Your task to perform on an android device: empty trash in google photos Image 0: 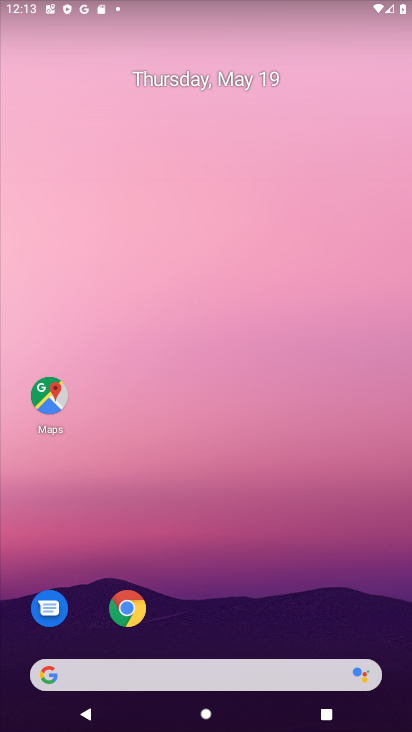
Step 0: drag from (246, 549) to (256, 309)
Your task to perform on an android device: empty trash in google photos Image 1: 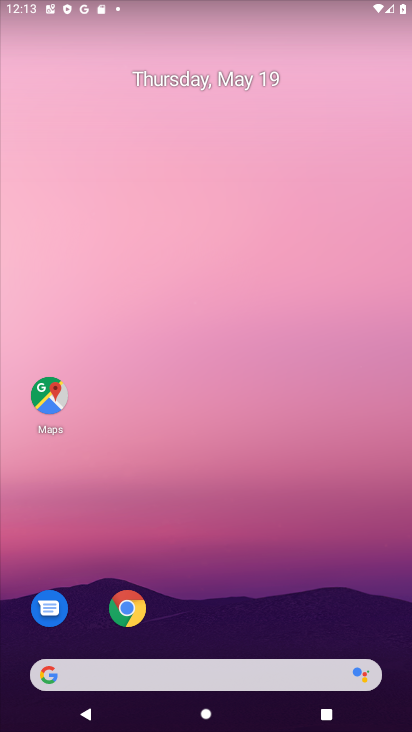
Step 1: drag from (245, 635) to (287, 211)
Your task to perform on an android device: empty trash in google photos Image 2: 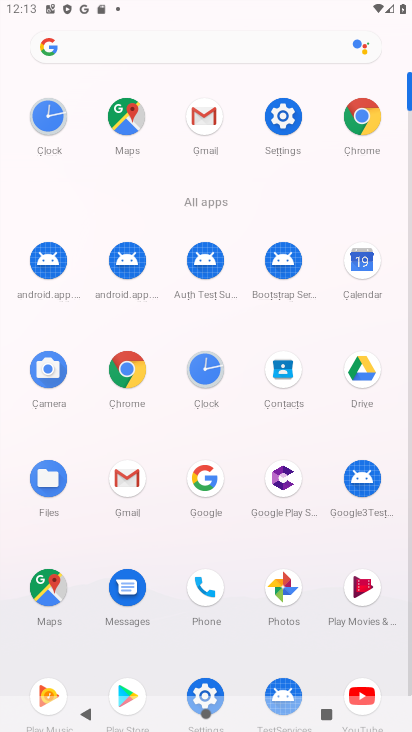
Step 2: click (274, 584)
Your task to perform on an android device: empty trash in google photos Image 3: 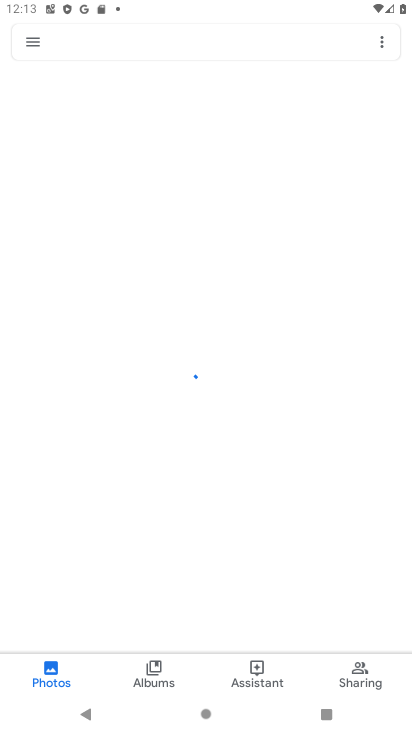
Step 3: click (27, 46)
Your task to perform on an android device: empty trash in google photos Image 4: 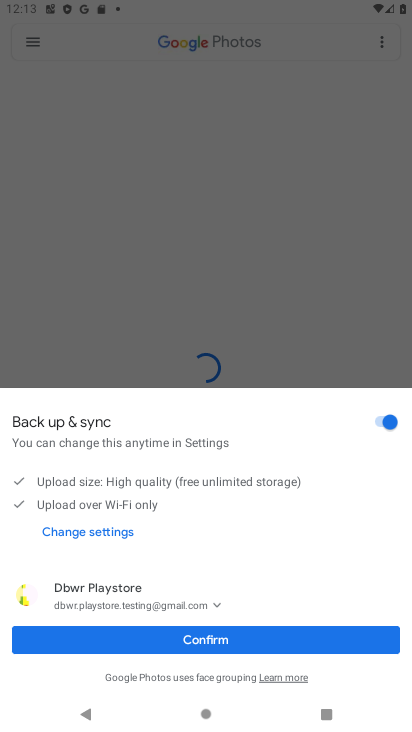
Step 4: click (239, 629)
Your task to perform on an android device: empty trash in google photos Image 5: 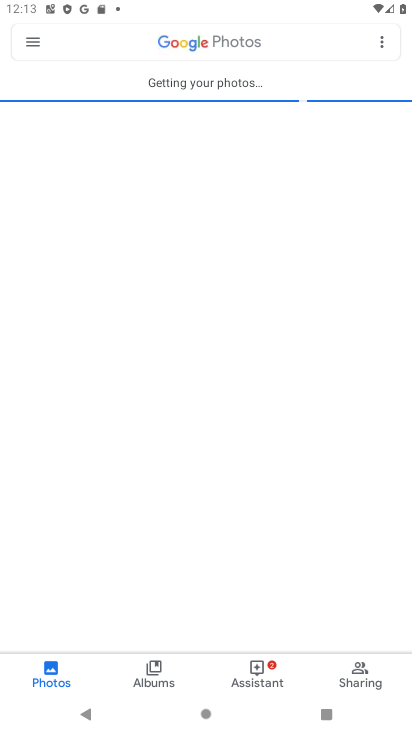
Step 5: click (24, 40)
Your task to perform on an android device: empty trash in google photos Image 6: 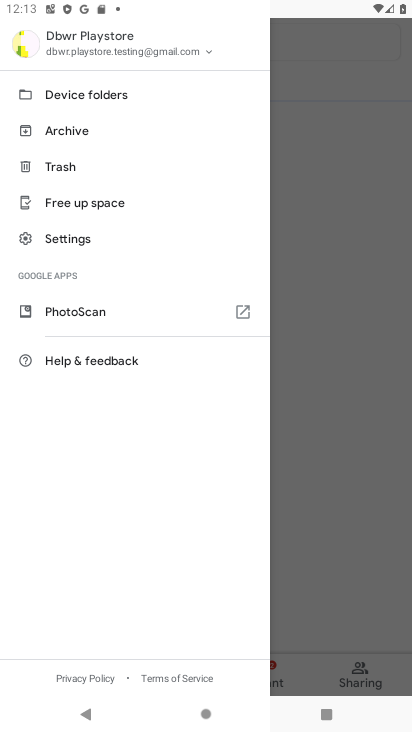
Step 6: click (71, 164)
Your task to perform on an android device: empty trash in google photos Image 7: 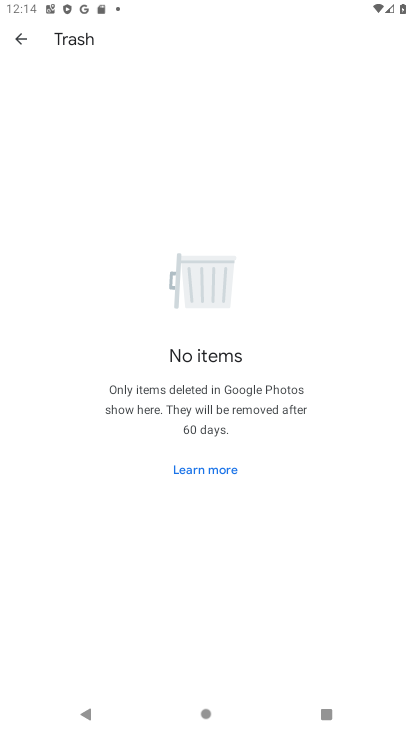
Step 7: task complete